Your task to perform on an android device: Go to accessibility settings Image 0: 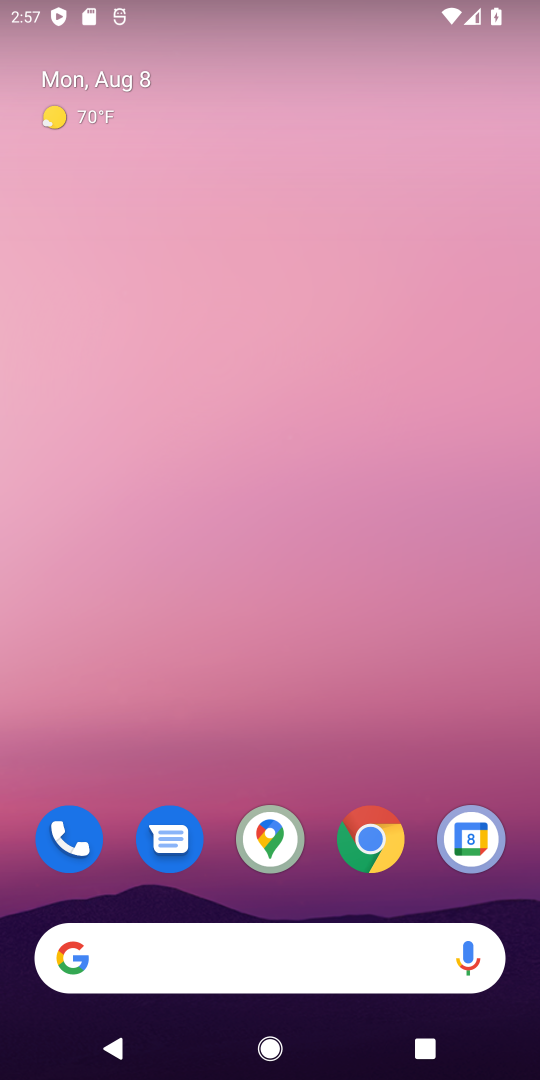
Step 0: press home button
Your task to perform on an android device: Go to accessibility settings Image 1: 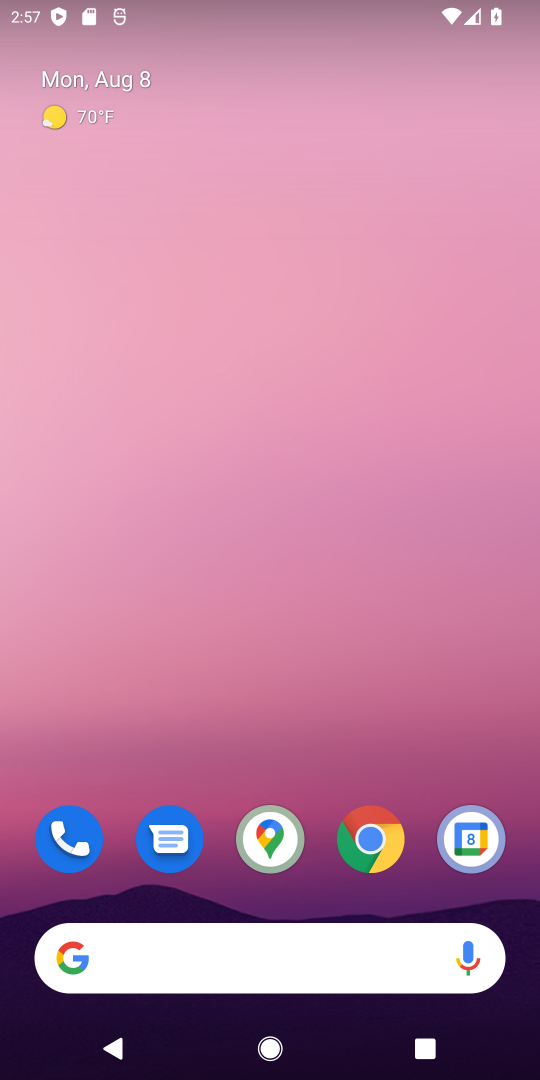
Step 1: drag from (415, 729) to (454, 214)
Your task to perform on an android device: Go to accessibility settings Image 2: 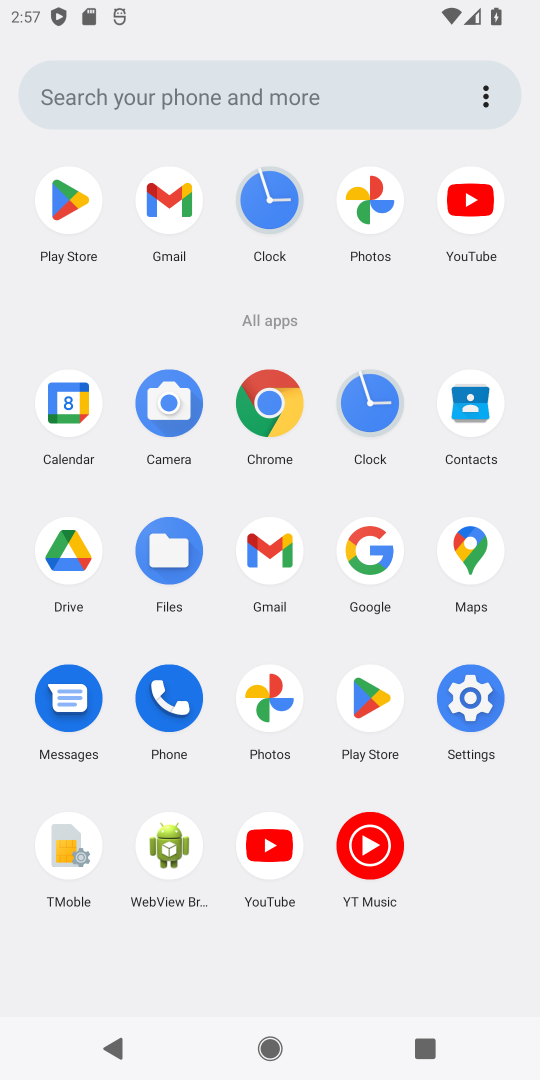
Step 2: click (471, 691)
Your task to perform on an android device: Go to accessibility settings Image 3: 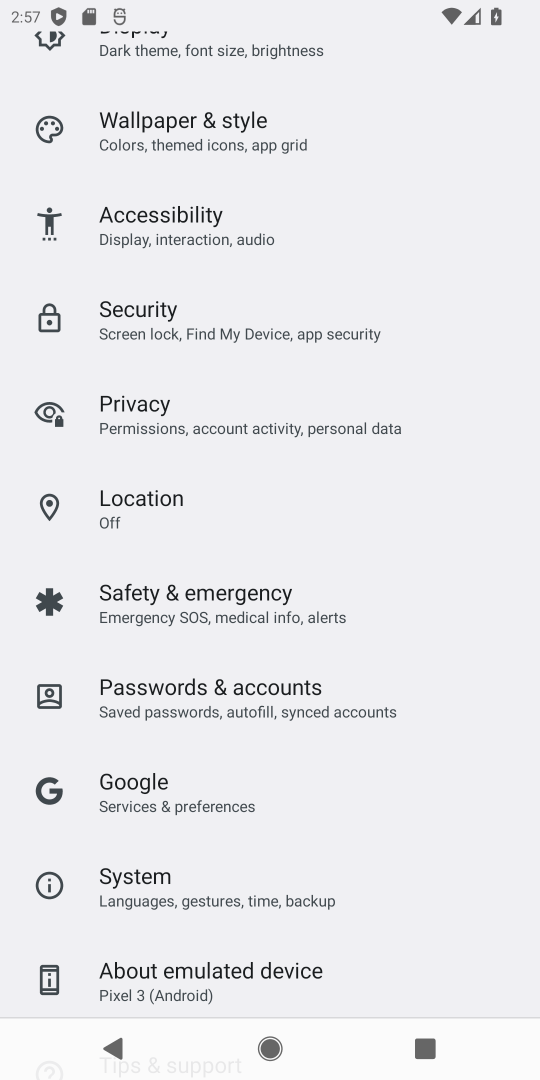
Step 3: drag from (483, 489) to (469, 595)
Your task to perform on an android device: Go to accessibility settings Image 4: 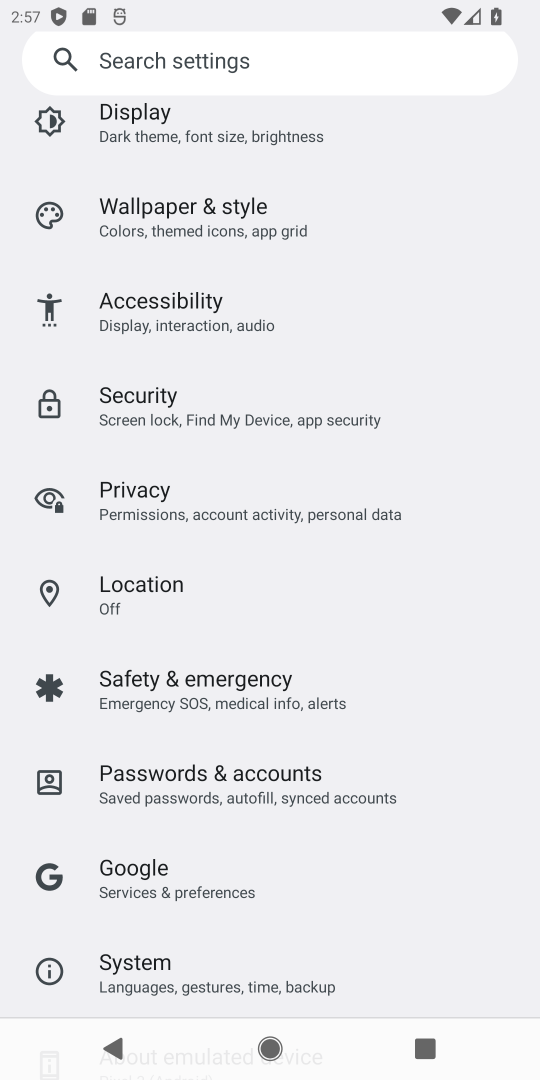
Step 4: drag from (464, 363) to (466, 579)
Your task to perform on an android device: Go to accessibility settings Image 5: 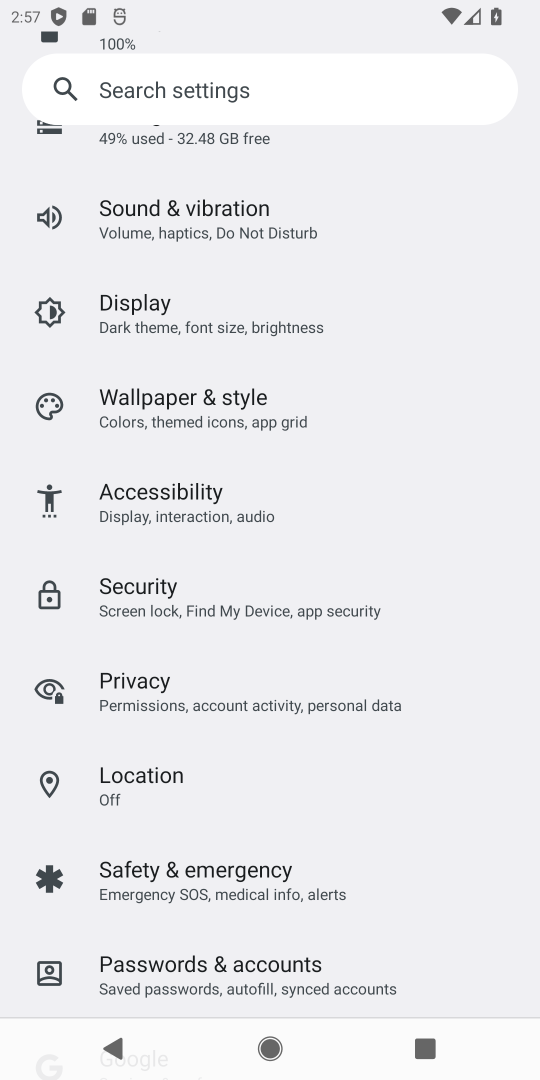
Step 5: drag from (468, 365) to (470, 545)
Your task to perform on an android device: Go to accessibility settings Image 6: 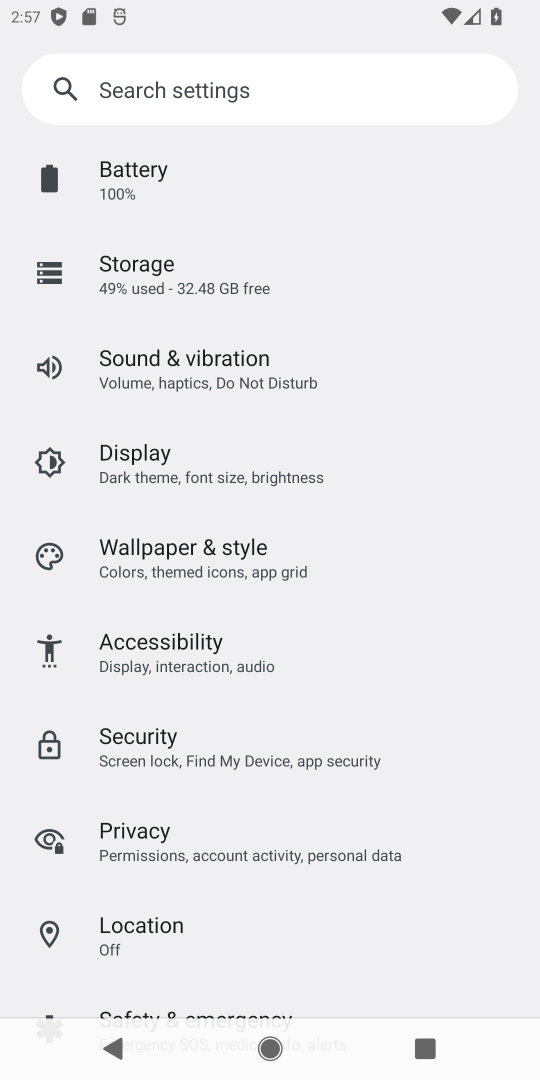
Step 6: drag from (475, 337) to (466, 553)
Your task to perform on an android device: Go to accessibility settings Image 7: 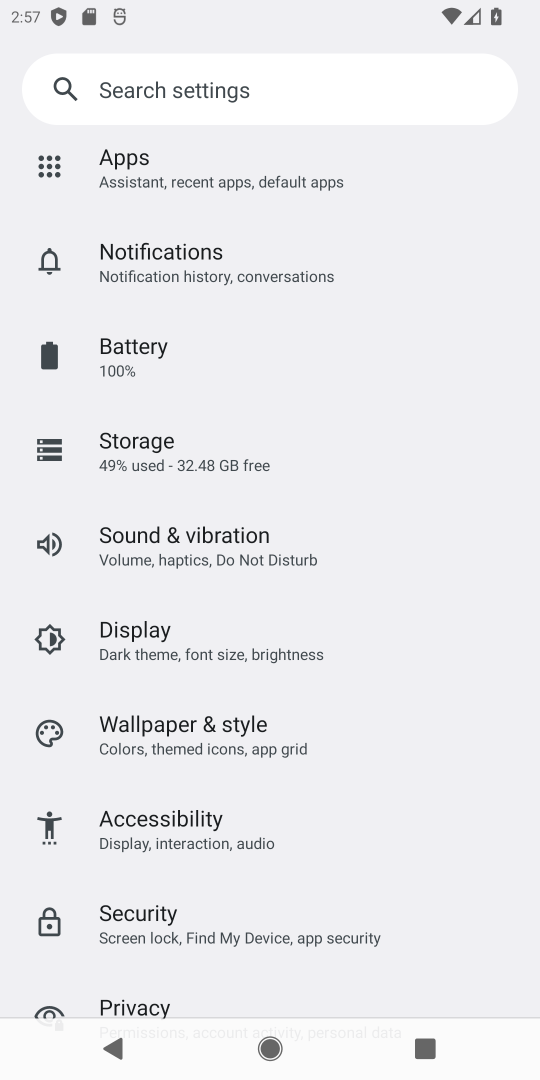
Step 7: click (377, 838)
Your task to perform on an android device: Go to accessibility settings Image 8: 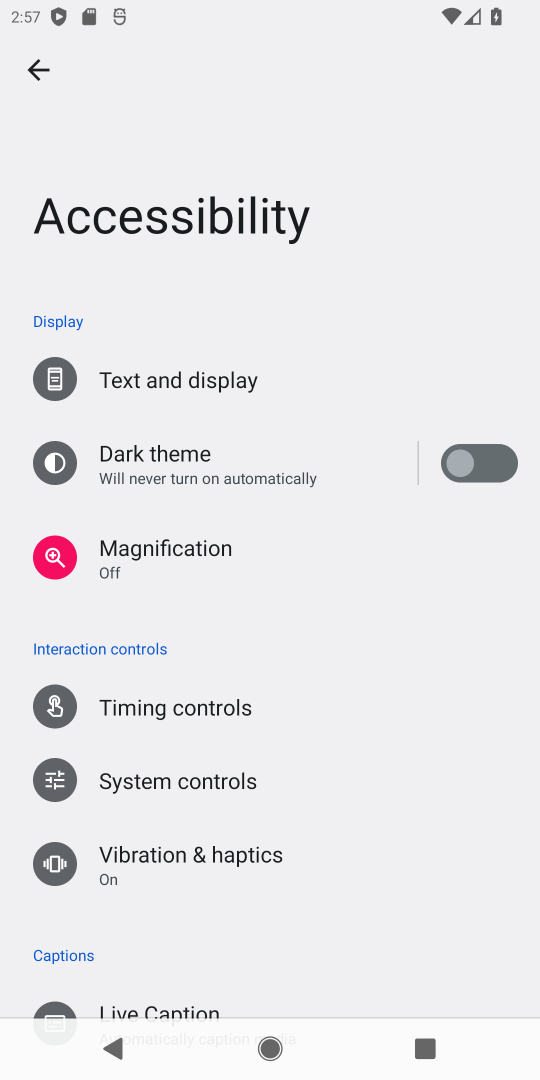
Step 8: task complete